Your task to perform on an android device: Do I have any events this weekend? Image 0: 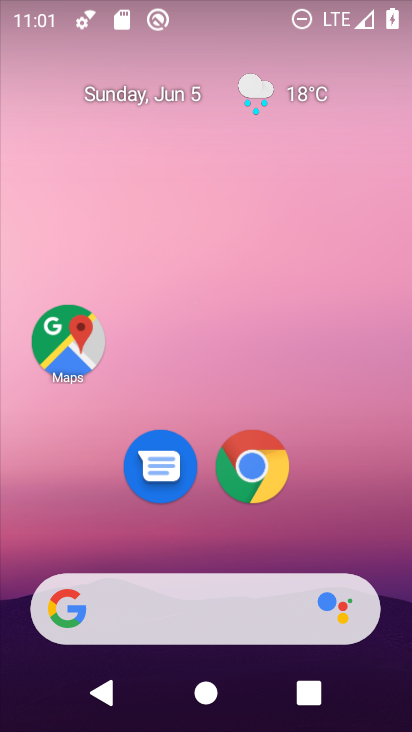
Step 0: drag from (370, 517) to (227, 62)
Your task to perform on an android device: Do I have any events this weekend? Image 1: 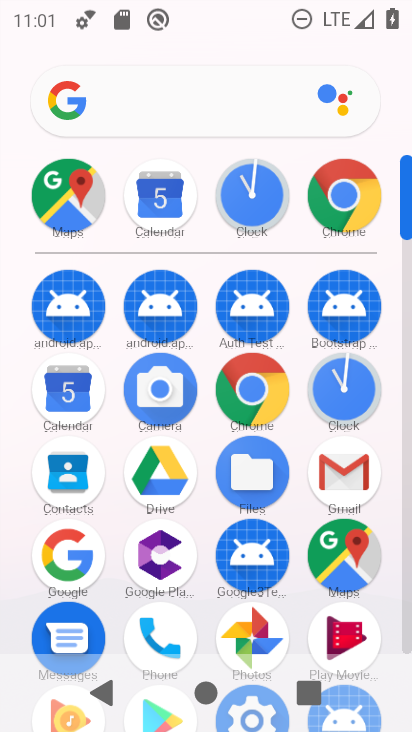
Step 1: drag from (17, 584) to (30, 272)
Your task to perform on an android device: Do I have any events this weekend? Image 2: 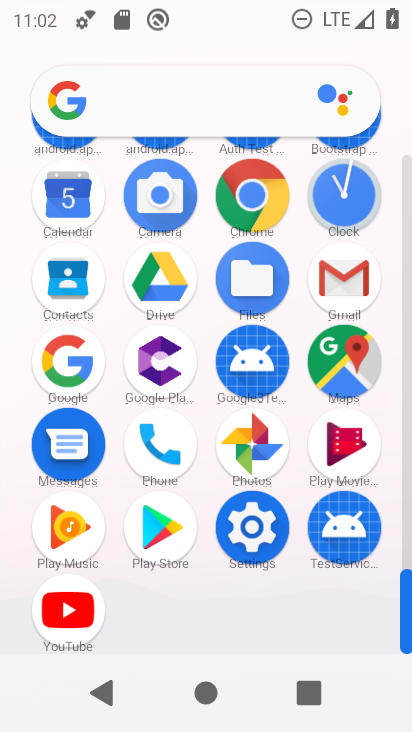
Step 2: drag from (15, 516) to (29, 225)
Your task to perform on an android device: Do I have any events this weekend? Image 3: 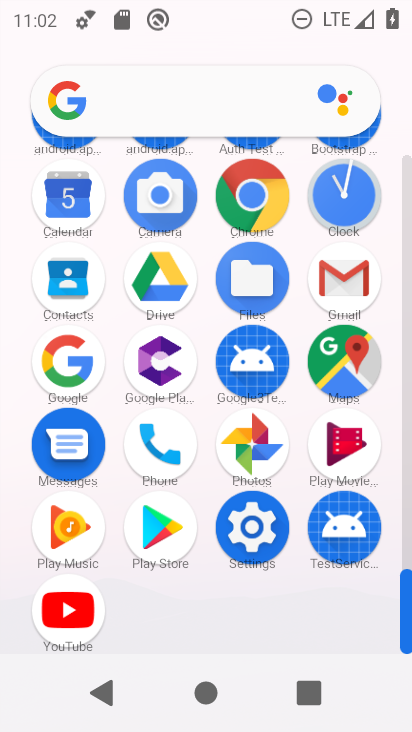
Step 3: click (65, 195)
Your task to perform on an android device: Do I have any events this weekend? Image 4: 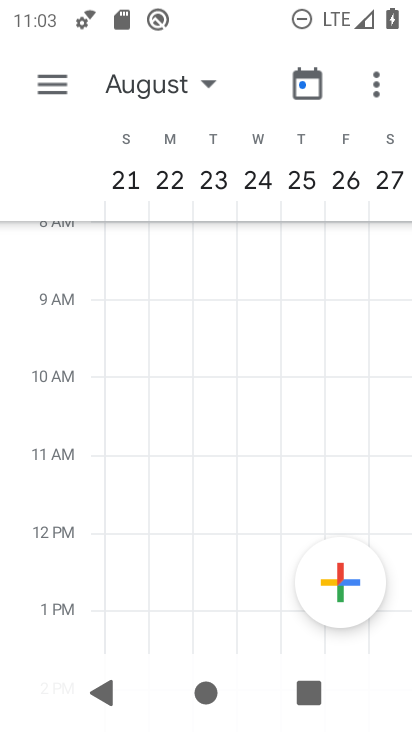
Step 4: click (46, 81)
Your task to perform on an android device: Do I have any events this weekend? Image 5: 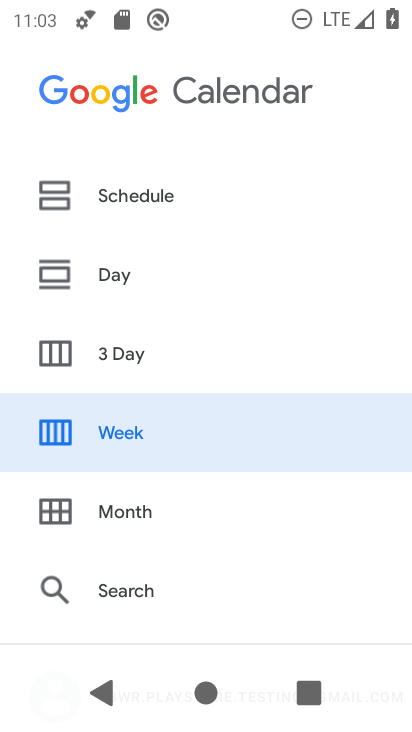
Step 5: drag from (210, 534) to (228, 229)
Your task to perform on an android device: Do I have any events this weekend? Image 6: 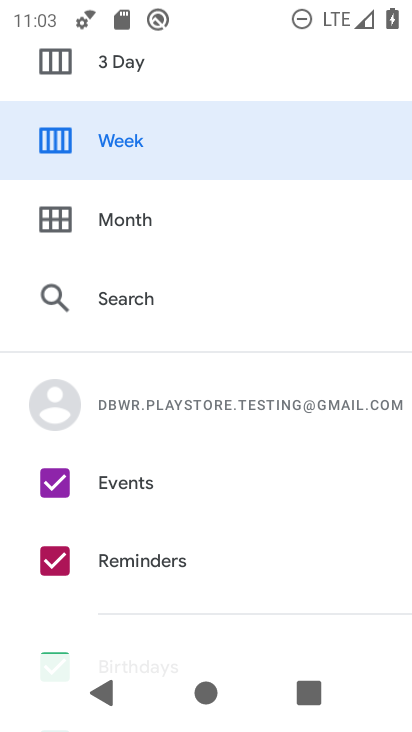
Step 6: drag from (232, 175) to (231, 372)
Your task to perform on an android device: Do I have any events this weekend? Image 7: 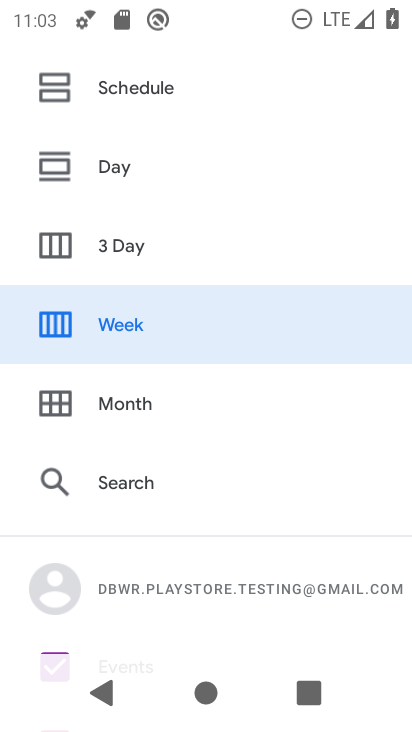
Step 7: click (165, 322)
Your task to perform on an android device: Do I have any events this weekend? Image 8: 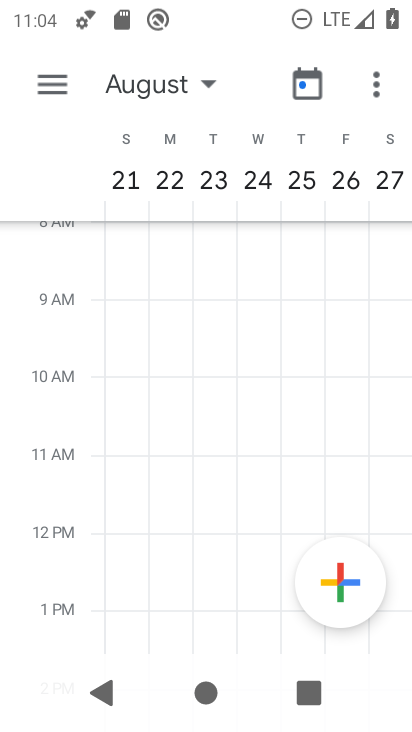
Step 8: click (301, 79)
Your task to perform on an android device: Do I have any events this weekend? Image 9: 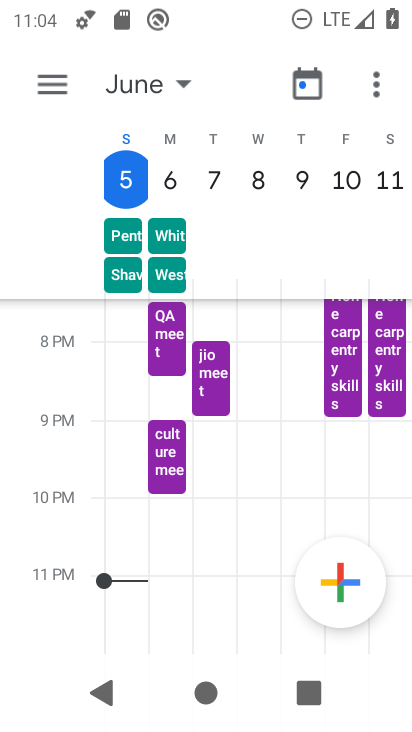
Step 9: click (384, 175)
Your task to perform on an android device: Do I have any events this weekend? Image 10: 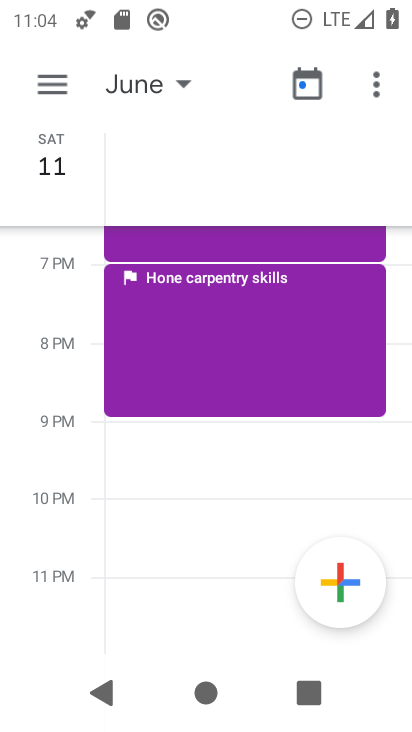
Step 10: task complete